Your task to perform on an android device: What is the recent news? Image 0: 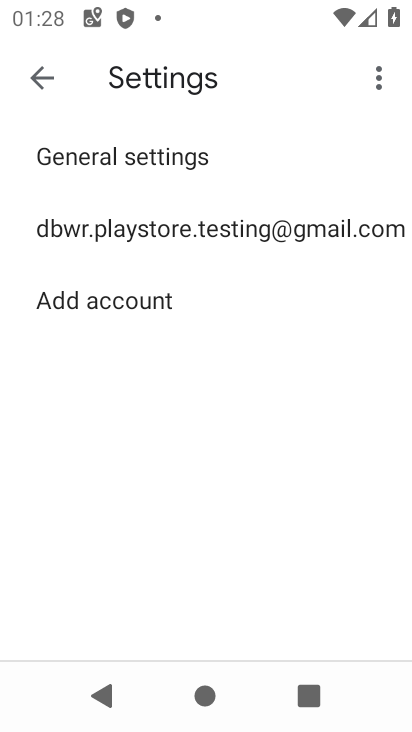
Step 0: press home button
Your task to perform on an android device: What is the recent news? Image 1: 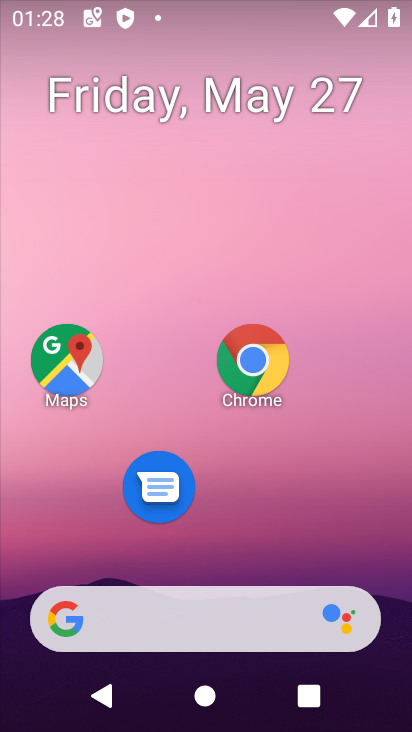
Step 1: drag from (281, 466) to (275, 105)
Your task to perform on an android device: What is the recent news? Image 2: 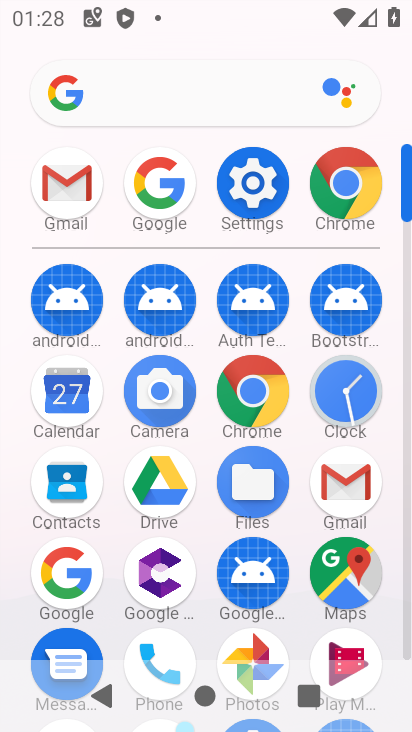
Step 2: click (164, 189)
Your task to perform on an android device: What is the recent news? Image 3: 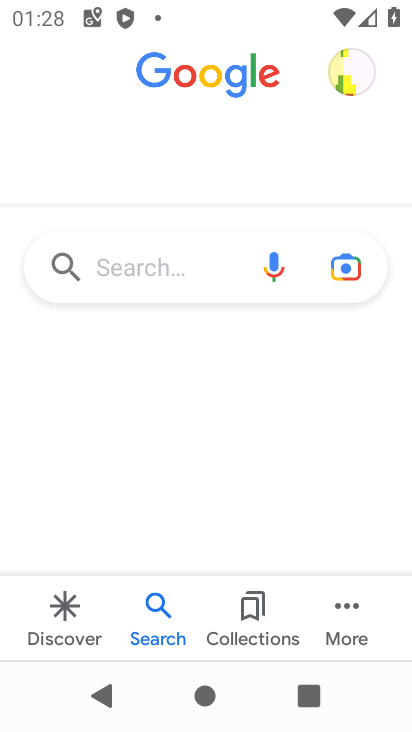
Step 3: click (145, 256)
Your task to perform on an android device: What is the recent news? Image 4: 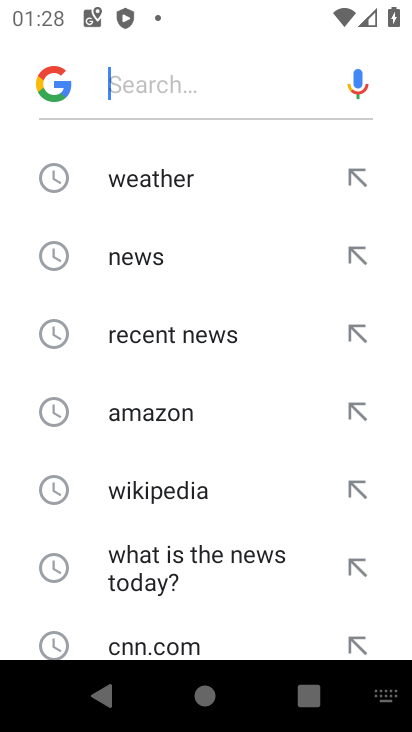
Step 4: click (186, 330)
Your task to perform on an android device: What is the recent news? Image 5: 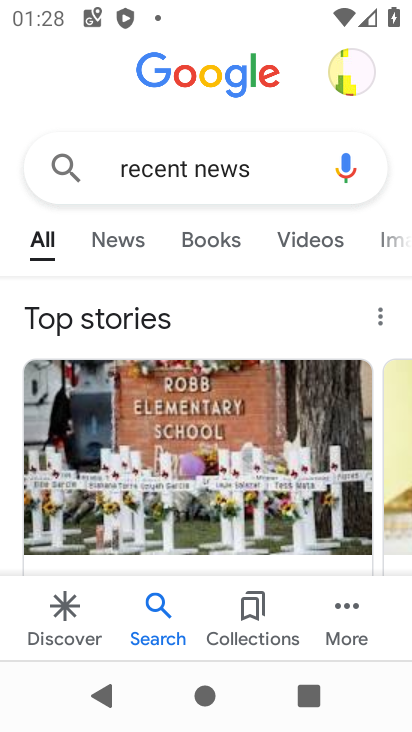
Step 5: task complete